Your task to perform on an android device: Is it going to rain today? Image 0: 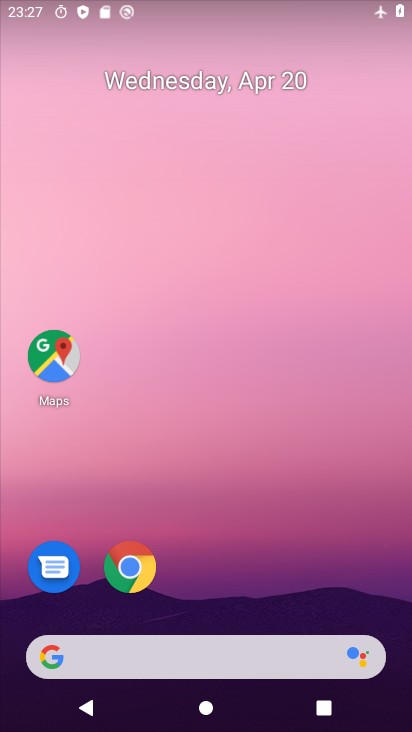
Step 0: drag from (296, 456) to (342, 163)
Your task to perform on an android device: Is it going to rain today? Image 1: 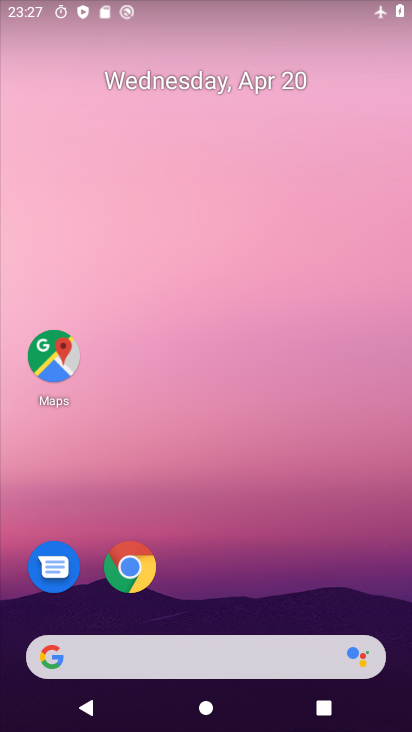
Step 1: drag from (274, 624) to (290, 301)
Your task to perform on an android device: Is it going to rain today? Image 2: 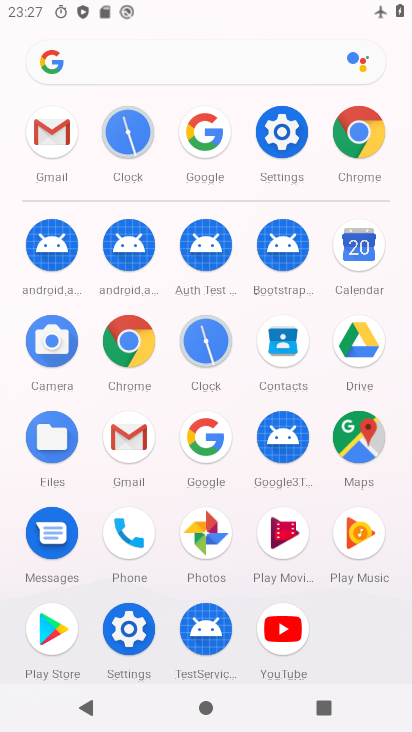
Step 2: click (195, 434)
Your task to perform on an android device: Is it going to rain today? Image 3: 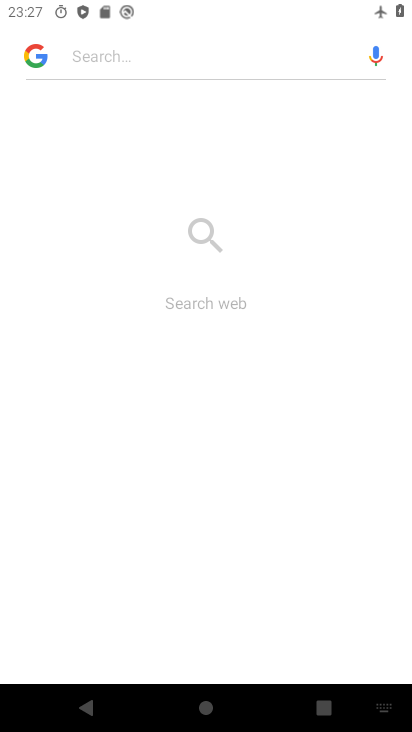
Step 3: click (227, 53)
Your task to perform on an android device: Is it going to rain today? Image 4: 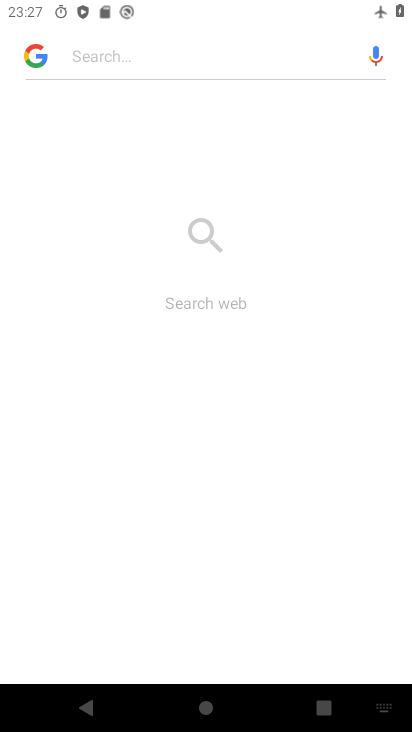
Step 4: type "Is it going to rain today?"
Your task to perform on an android device: Is it going to rain today? Image 5: 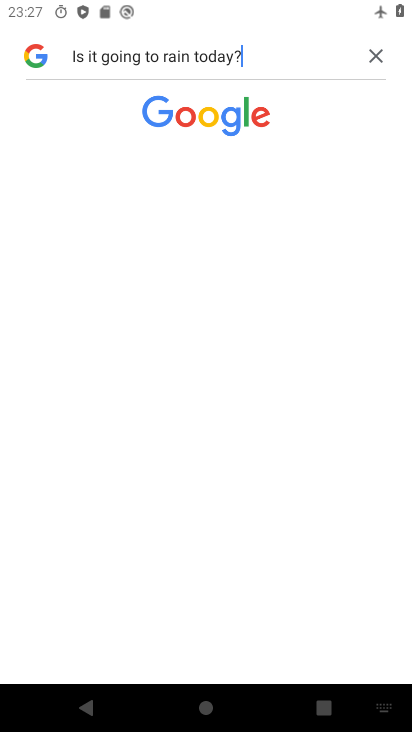
Step 5: press home button
Your task to perform on an android device: Is it going to rain today? Image 6: 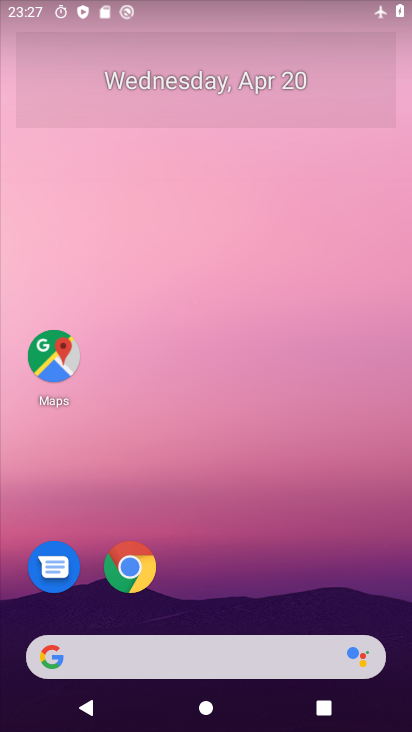
Step 6: click (127, 568)
Your task to perform on an android device: Is it going to rain today? Image 7: 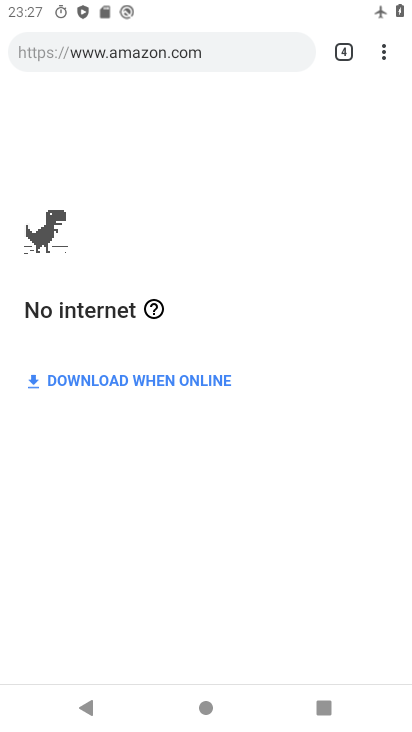
Step 7: click (371, 50)
Your task to perform on an android device: Is it going to rain today? Image 8: 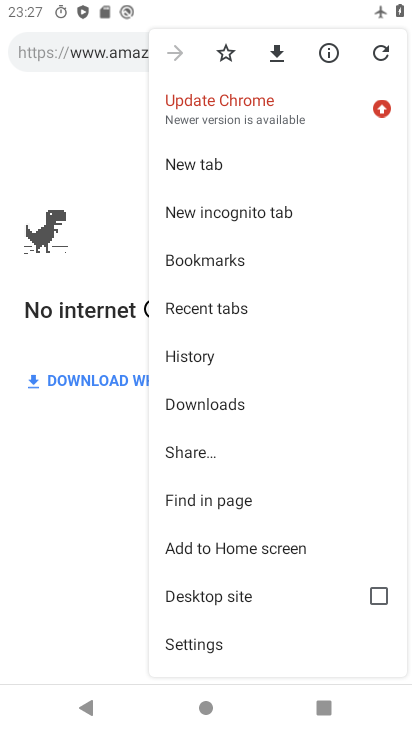
Step 8: click (201, 157)
Your task to perform on an android device: Is it going to rain today? Image 9: 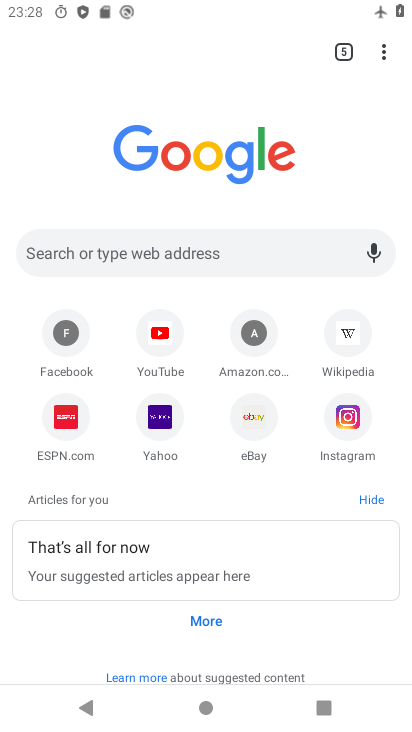
Step 9: click (246, 243)
Your task to perform on an android device: Is it going to rain today? Image 10: 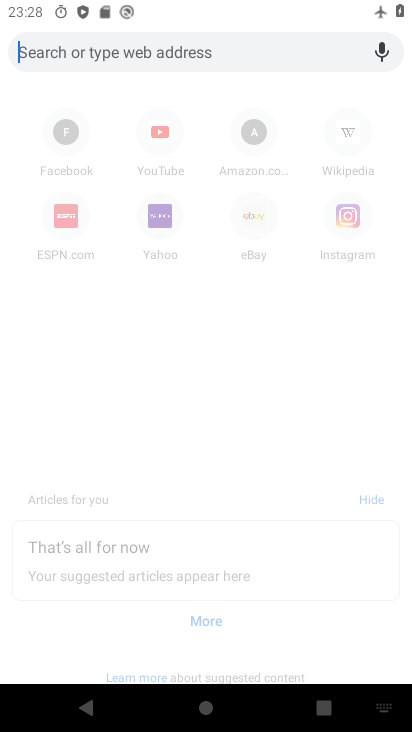
Step 10: type "Is it going to rain today?"
Your task to perform on an android device: Is it going to rain today? Image 11: 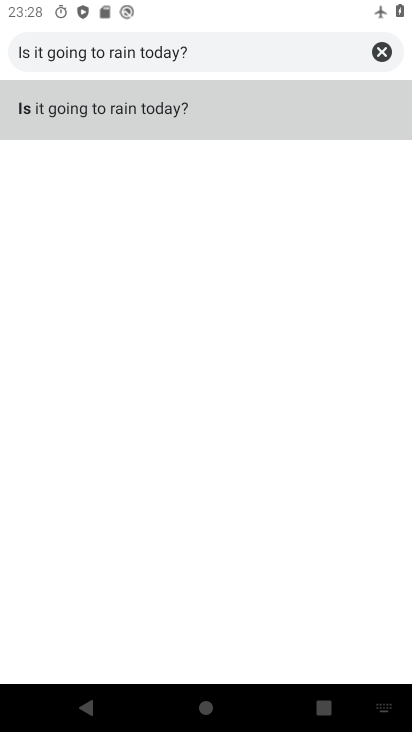
Step 11: click (163, 121)
Your task to perform on an android device: Is it going to rain today? Image 12: 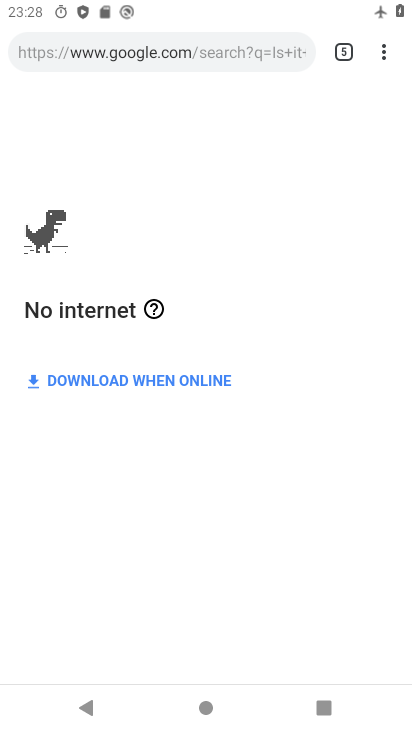
Step 12: task complete